Your task to perform on an android device: Open the calendar and show me this week's events? Image 0: 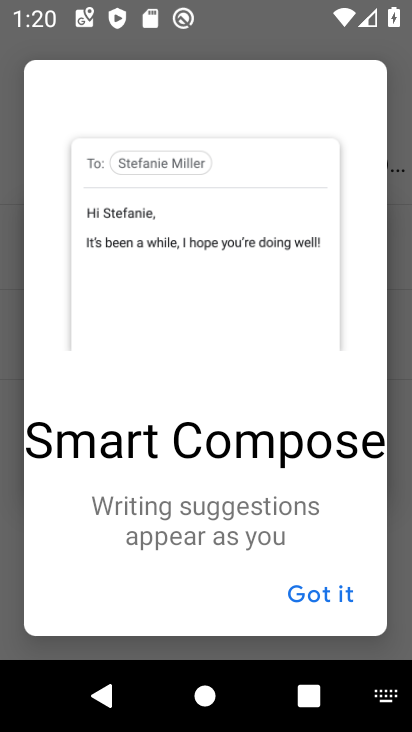
Step 0: press home button
Your task to perform on an android device: Open the calendar and show me this week's events? Image 1: 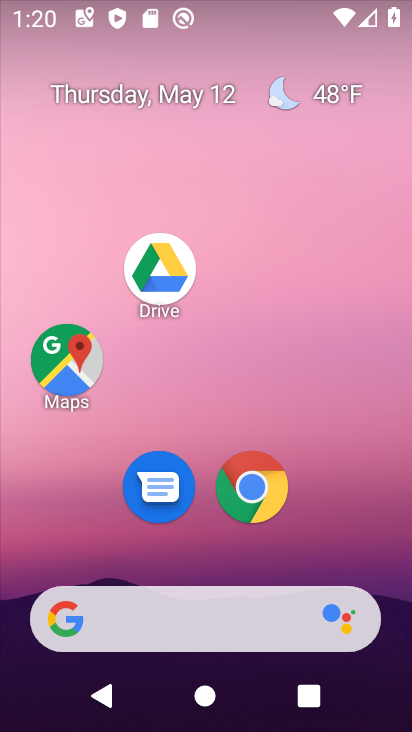
Step 1: drag from (219, 565) to (193, 15)
Your task to perform on an android device: Open the calendar and show me this week's events? Image 2: 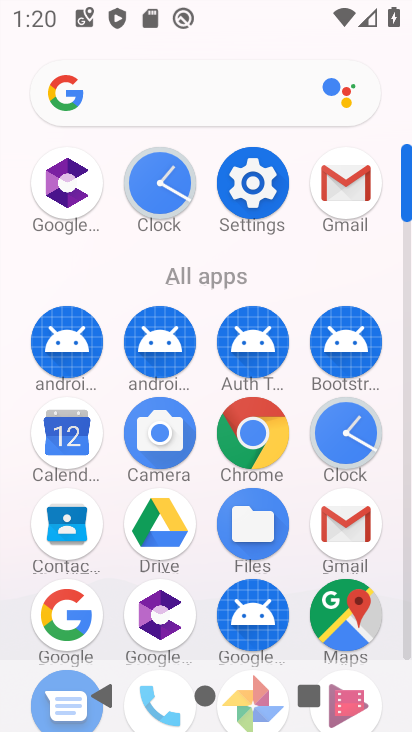
Step 2: click (64, 441)
Your task to perform on an android device: Open the calendar and show me this week's events? Image 3: 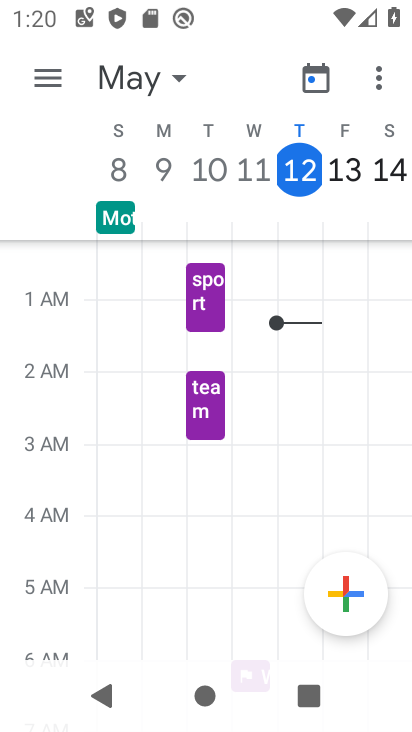
Step 3: task complete